Your task to perform on an android device: find which apps use the phone's location Image 0: 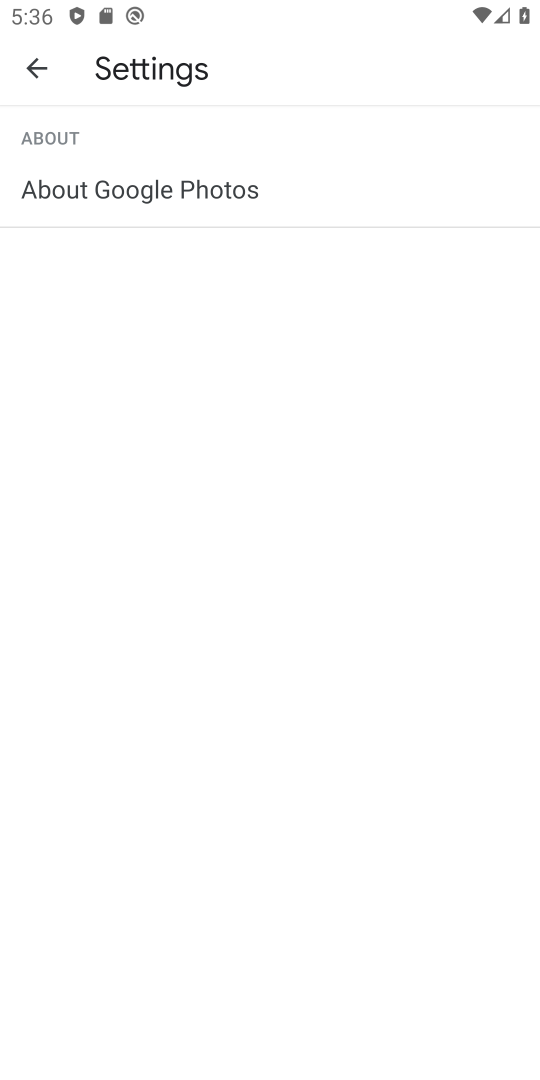
Step 0: press home button
Your task to perform on an android device: find which apps use the phone's location Image 1: 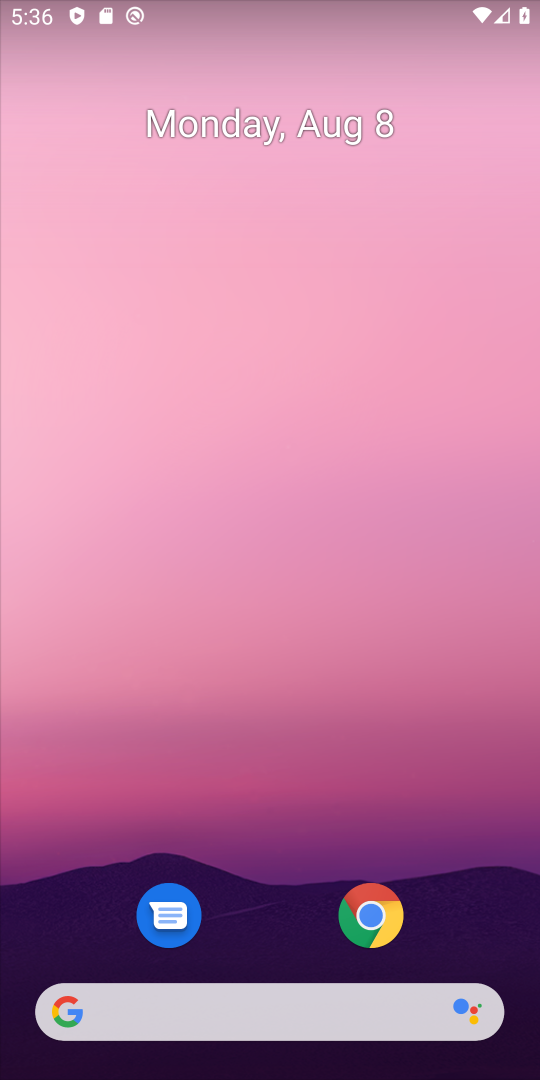
Step 1: drag from (268, 818) to (263, 80)
Your task to perform on an android device: find which apps use the phone's location Image 2: 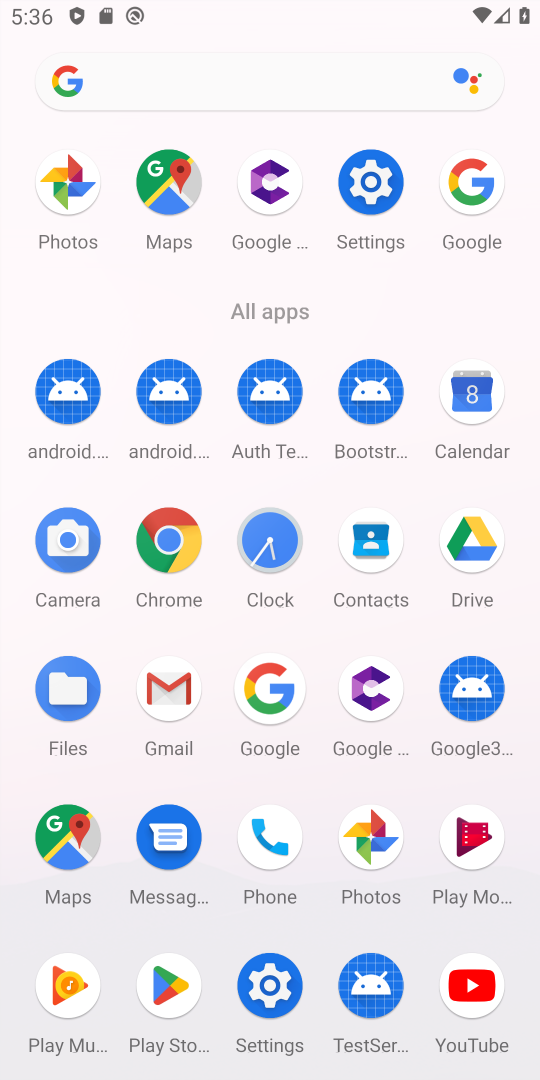
Step 2: click (371, 183)
Your task to perform on an android device: find which apps use the phone's location Image 3: 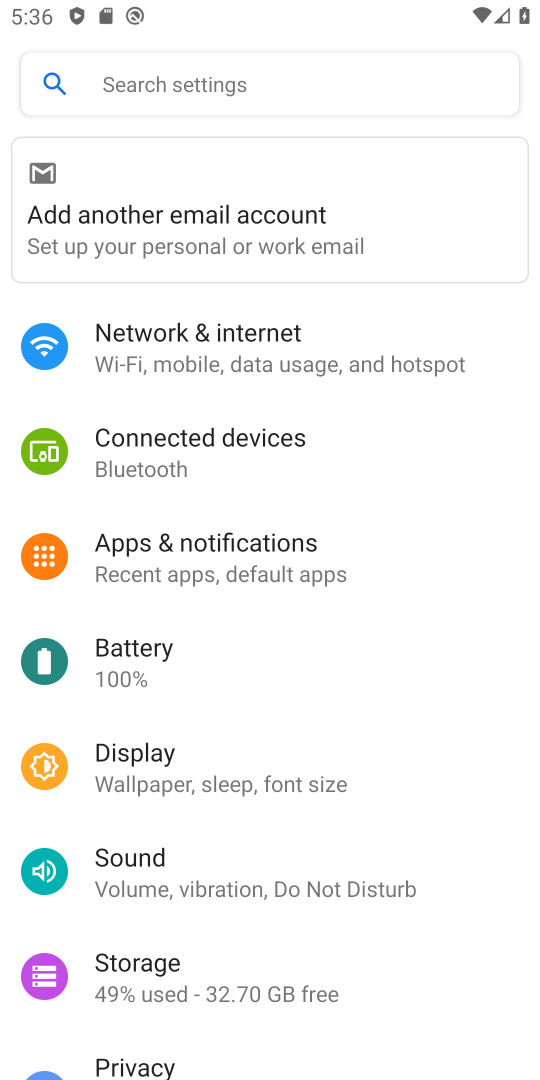
Step 3: drag from (349, 842) to (349, 416)
Your task to perform on an android device: find which apps use the phone's location Image 4: 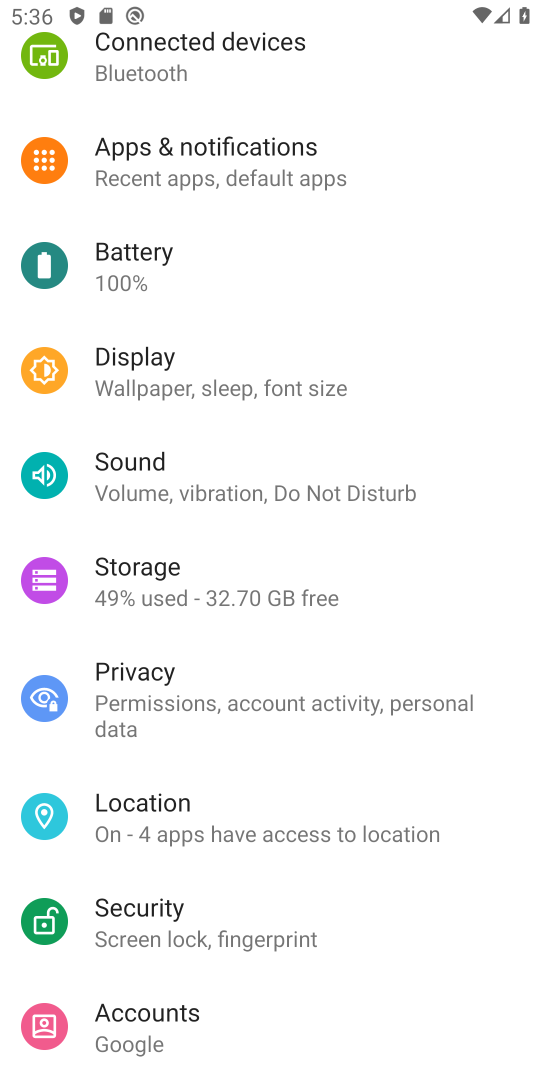
Step 4: click (137, 807)
Your task to perform on an android device: find which apps use the phone's location Image 5: 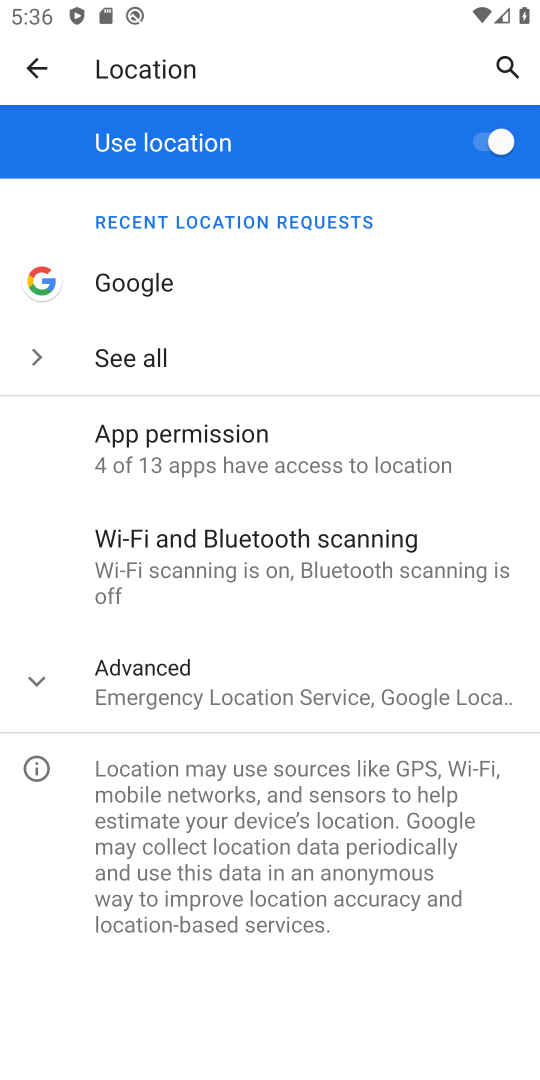
Step 5: click (111, 354)
Your task to perform on an android device: find which apps use the phone's location Image 6: 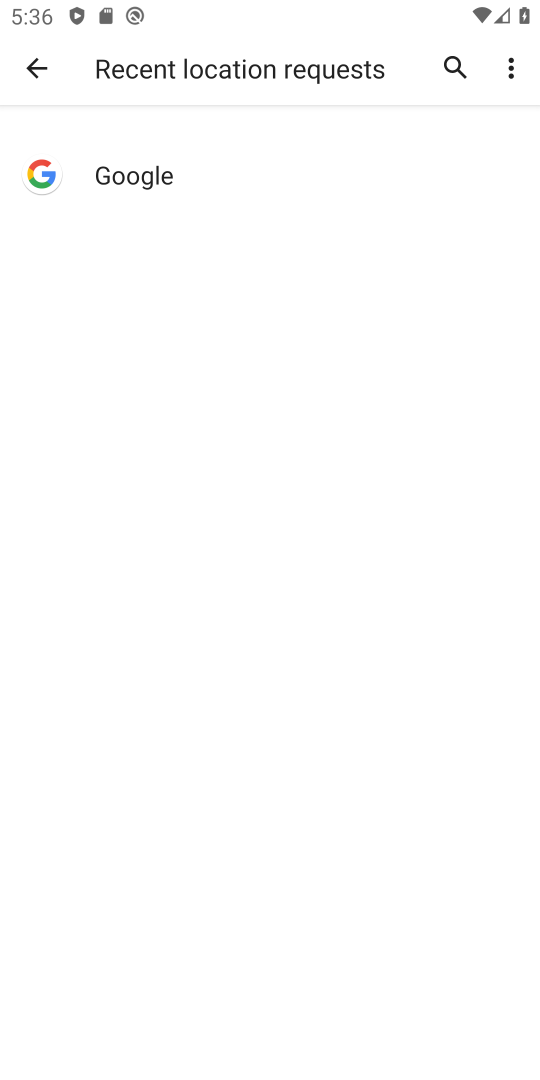
Step 6: task complete